Your task to perform on an android device: Open Amazon Image 0: 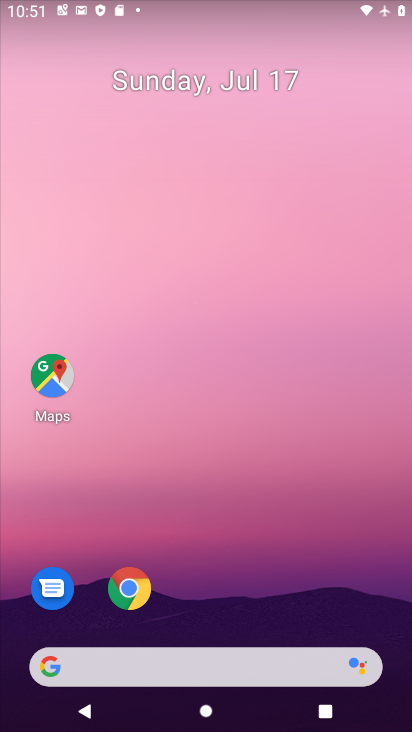
Step 0: click (111, 593)
Your task to perform on an android device: Open Amazon Image 1: 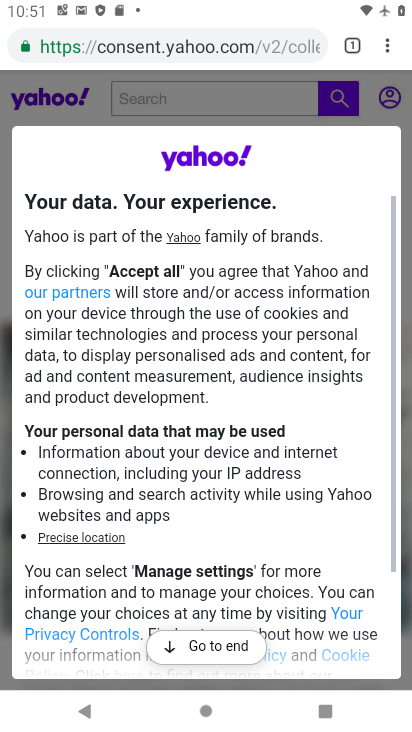
Step 1: click (208, 52)
Your task to perform on an android device: Open Amazon Image 2: 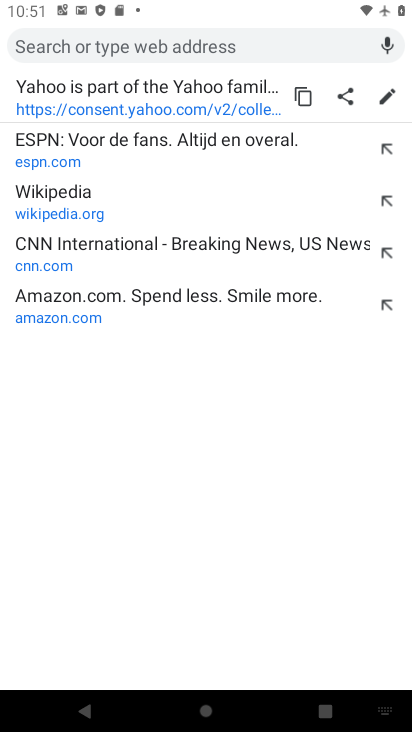
Step 2: type "Amazon"
Your task to perform on an android device: Open Amazon Image 3: 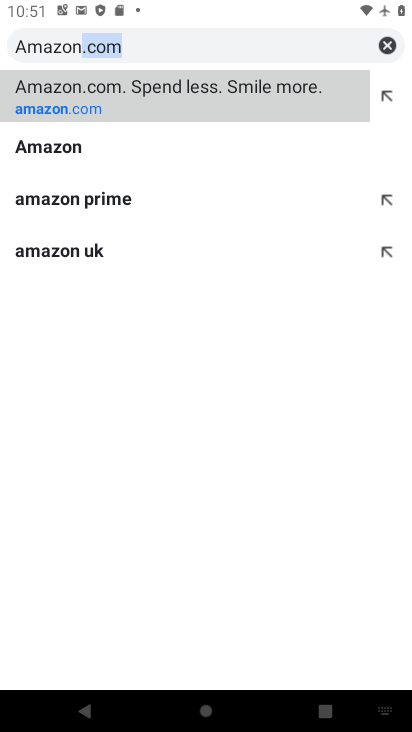
Step 3: type ""
Your task to perform on an android device: Open Amazon Image 4: 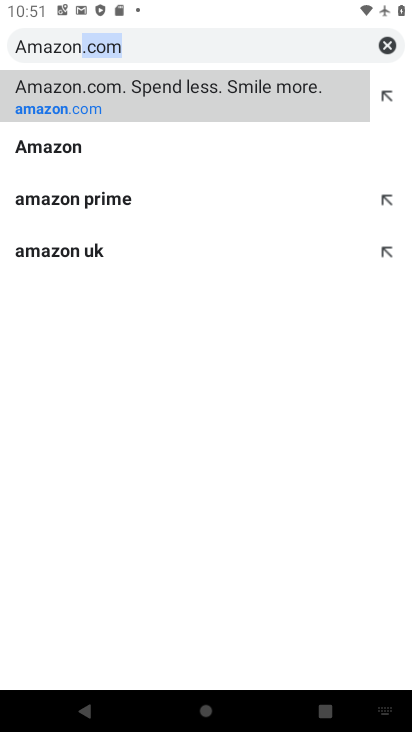
Step 4: click (107, 103)
Your task to perform on an android device: Open Amazon Image 5: 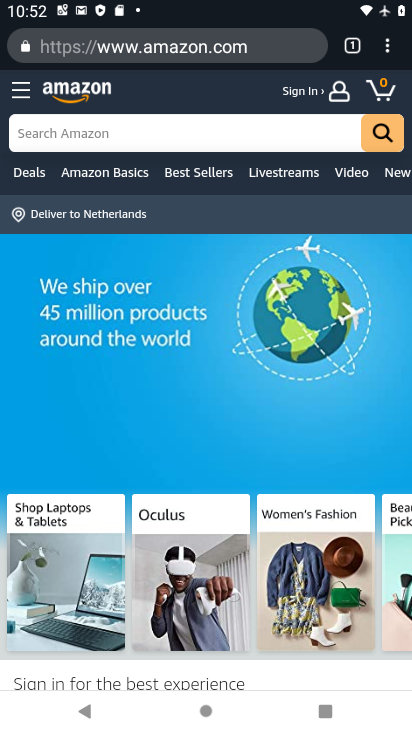
Step 5: task complete